Your task to perform on an android device: Show me the alarms in the clock app Image 0: 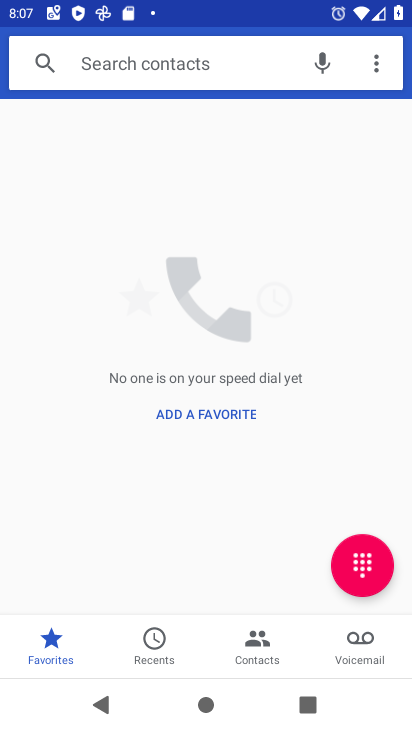
Step 0: press home button
Your task to perform on an android device: Show me the alarms in the clock app Image 1: 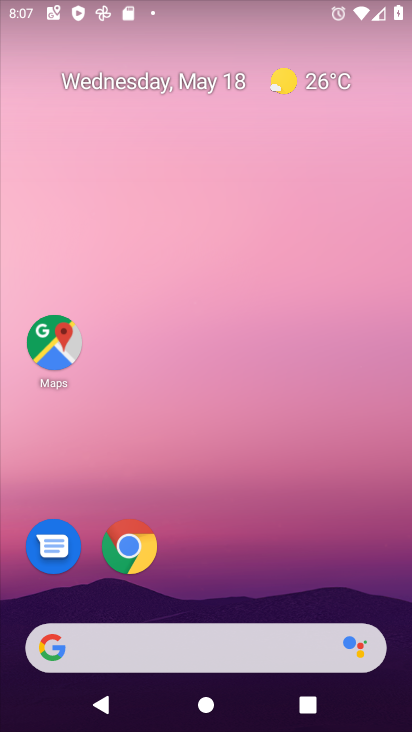
Step 1: drag from (390, 613) to (318, 44)
Your task to perform on an android device: Show me the alarms in the clock app Image 2: 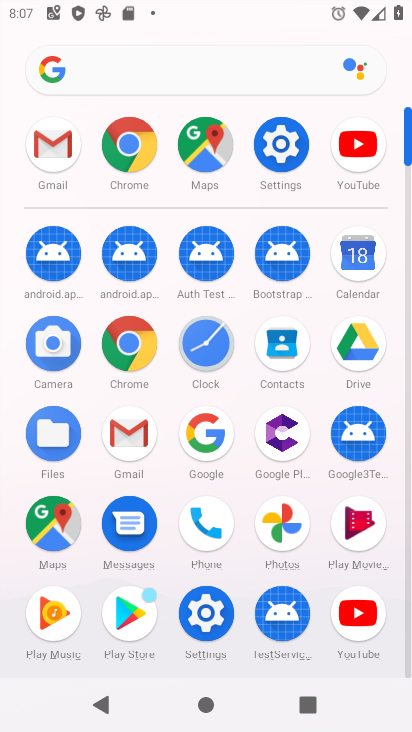
Step 2: click (213, 344)
Your task to perform on an android device: Show me the alarms in the clock app Image 3: 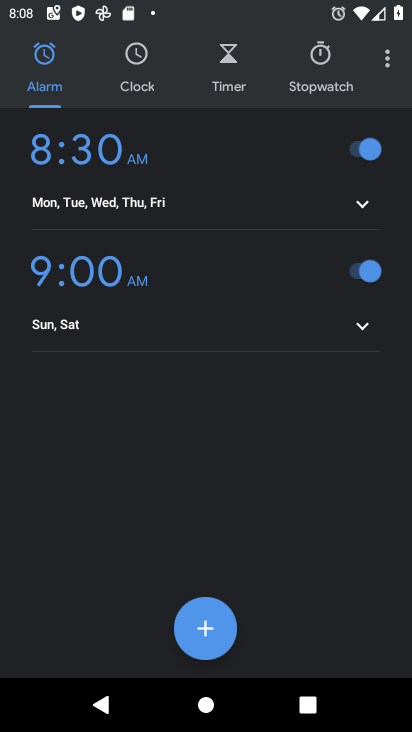
Step 3: task complete